Your task to perform on an android device: add a contact in the contacts app Image 0: 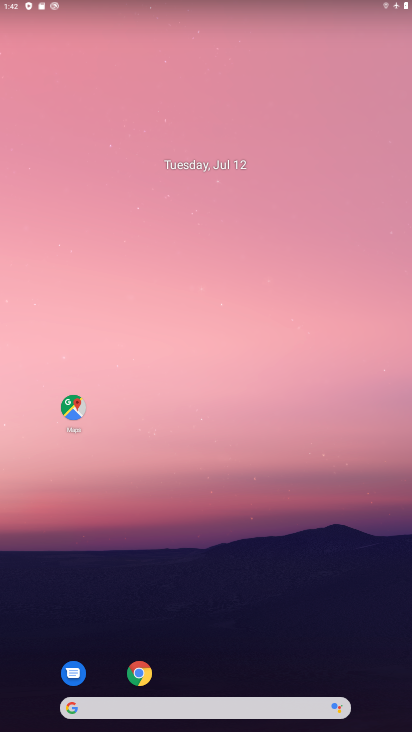
Step 0: drag from (220, 650) to (254, 257)
Your task to perform on an android device: add a contact in the contacts app Image 1: 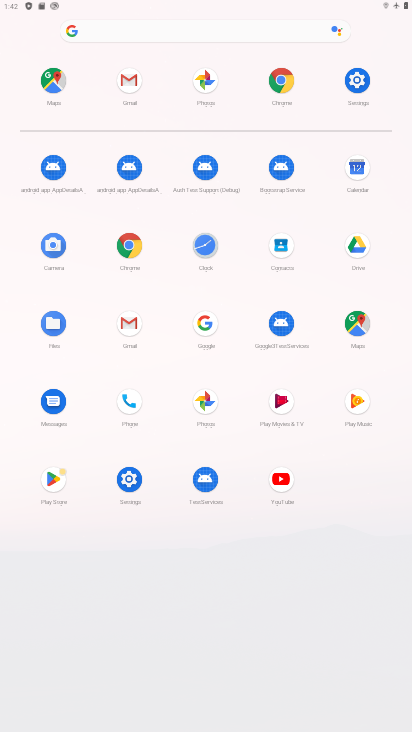
Step 1: click (135, 402)
Your task to perform on an android device: add a contact in the contacts app Image 2: 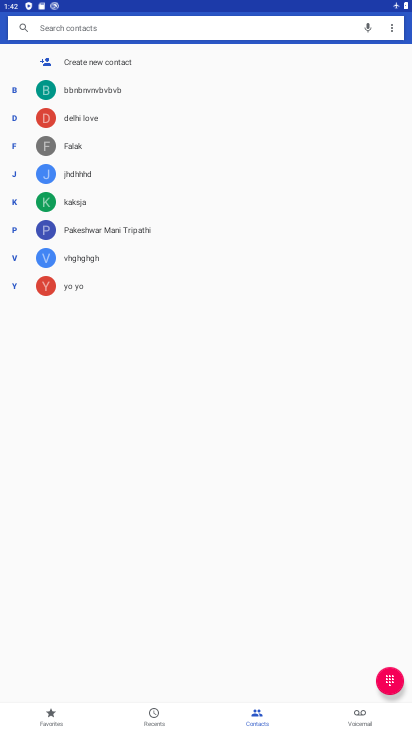
Step 2: click (79, 67)
Your task to perform on an android device: add a contact in the contacts app Image 3: 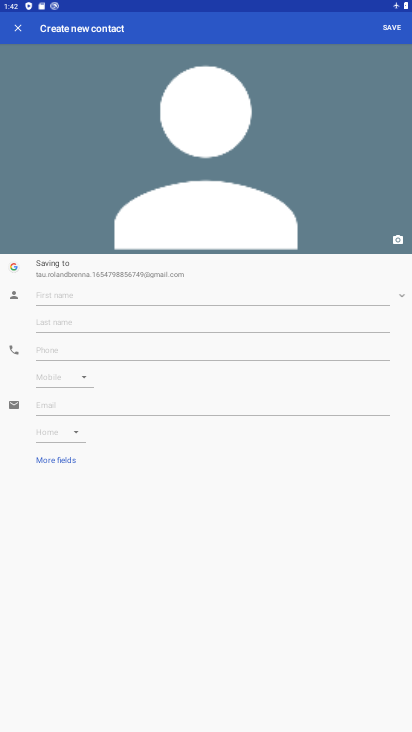
Step 3: click (110, 280)
Your task to perform on an android device: add a contact in the contacts app Image 4: 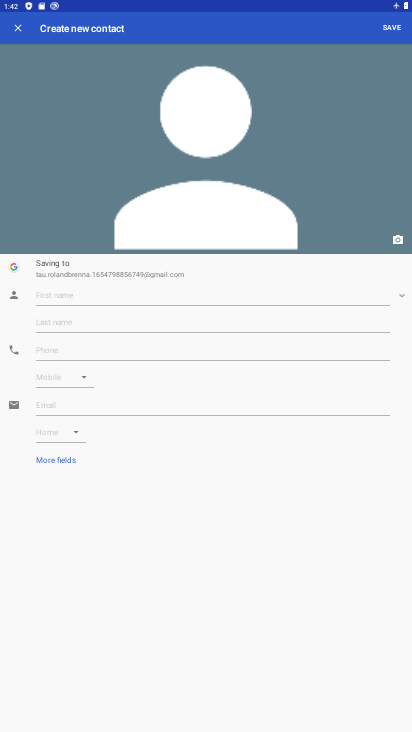
Step 4: click (129, 277)
Your task to perform on an android device: add a contact in the contacts app Image 5: 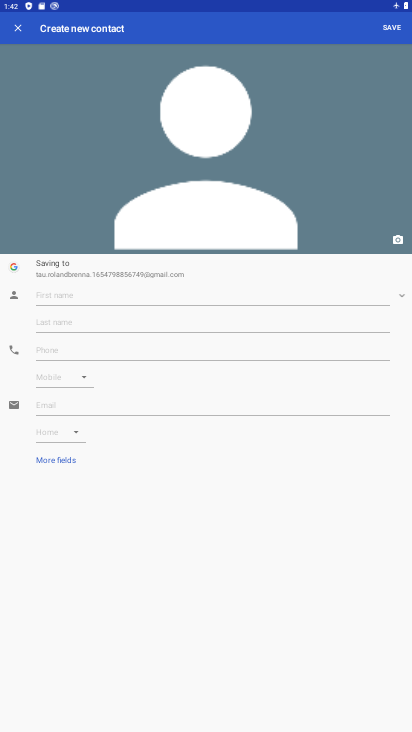
Step 5: click (112, 298)
Your task to perform on an android device: add a contact in the contacts app Image 6: 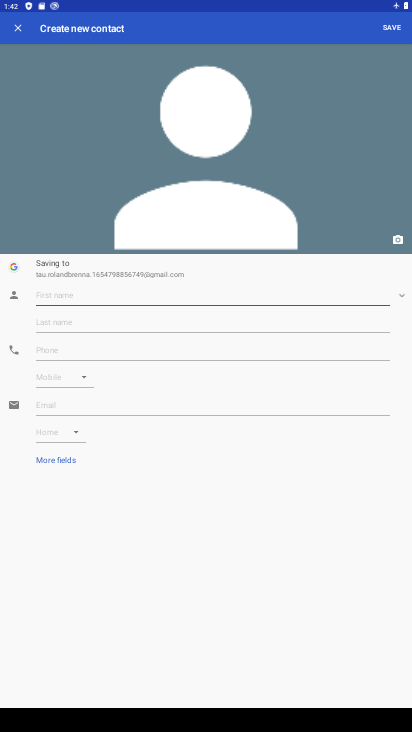
Step 6: type "vvvvvvvvvvvvvvvvvvvvvv "
Your task to perform on an android device: add a contact in the contacts app Image 7: 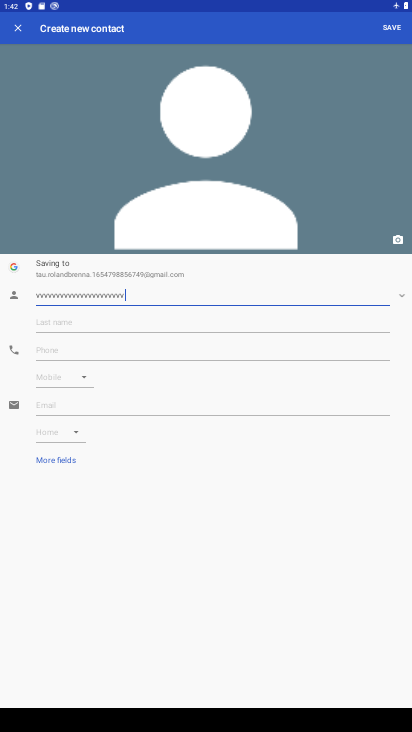
Step 7: click (100, 348)
Your task to perform on an android device: add a contact in the contacts app Image 8: 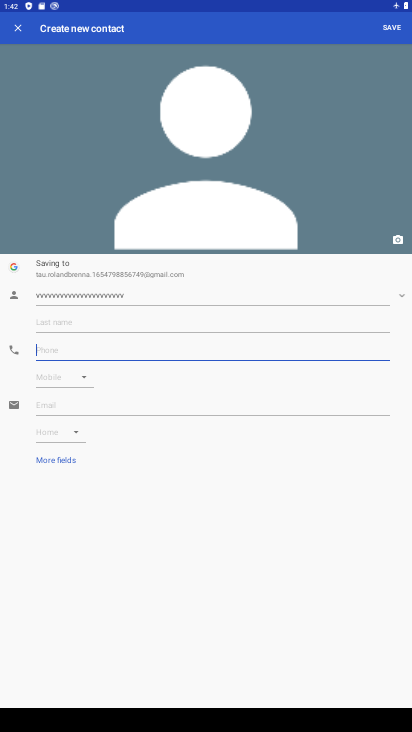
Step 8: type "0098765433322221 "
Your task to perform on an android device: add a contact in the contacts app Image 9: 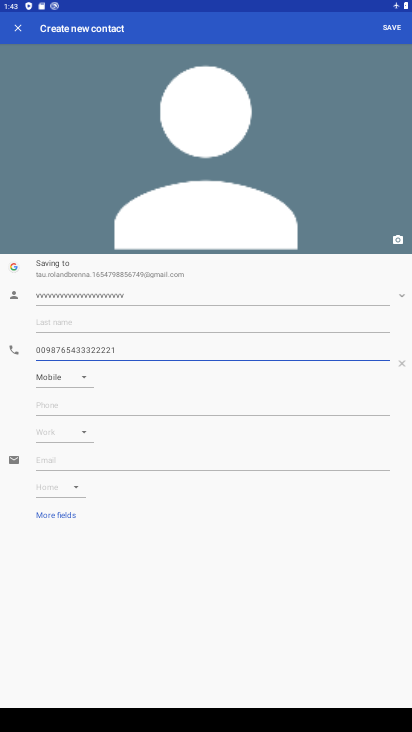
Step 9: click (382, 28)
Your task to perform on an android device: add a contact in the contacts app Image 10: 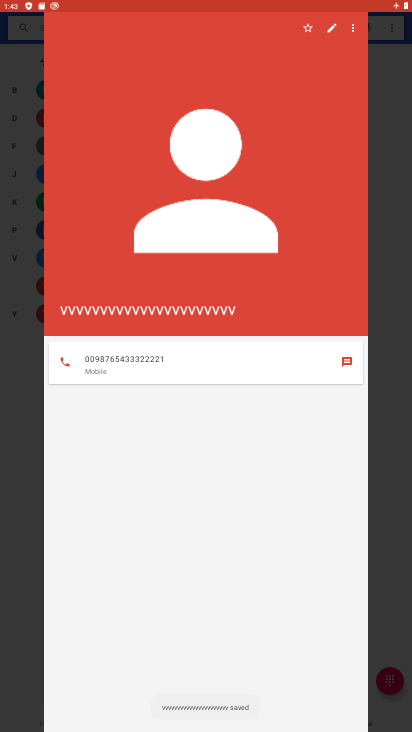
Step 10: task complete